Your task to perform on an android device: turn on location history Image 0: 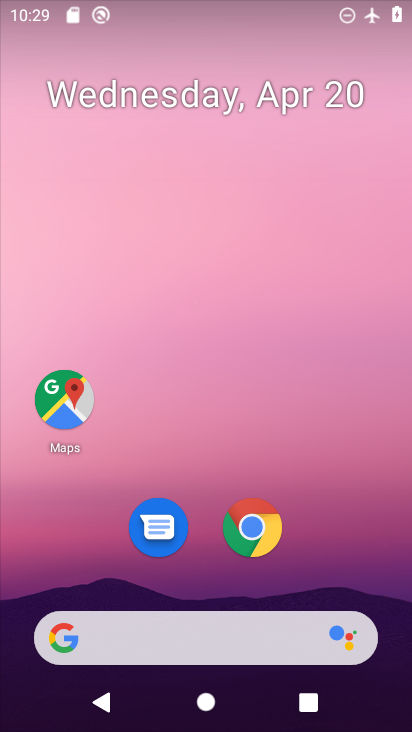
Step 0: drag from (206, 558) to (241, 2)
Your task to perform on an android device: turn on location history Image 1: 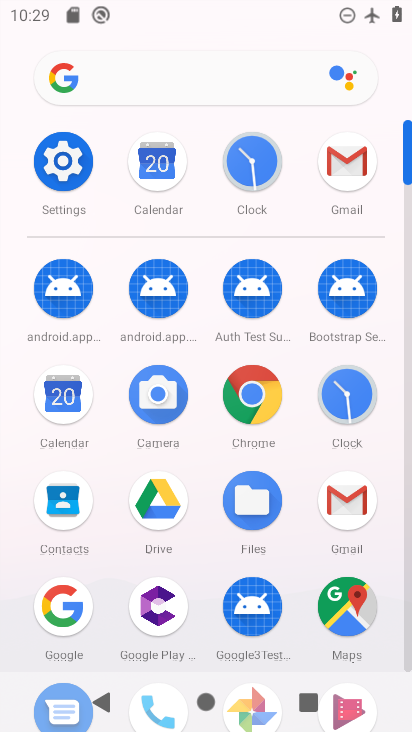
Step 1: click (77, 170)
Your task to perform on an android device: turn on location history Image 2: 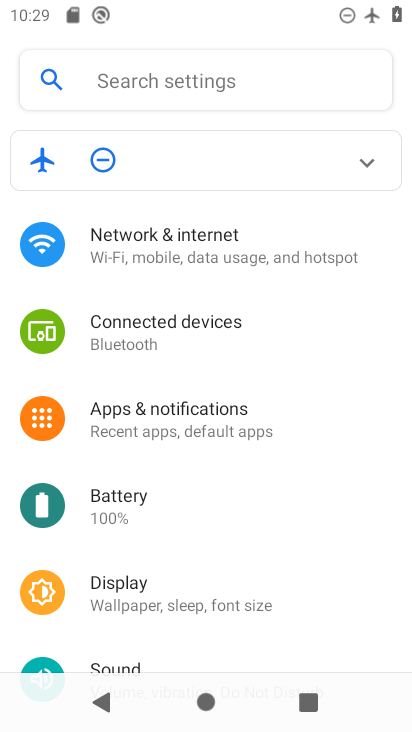
Step 2: drag from (161, 587) to (246, 143)
Your task to perform on an android device: turn on location history Image 3: 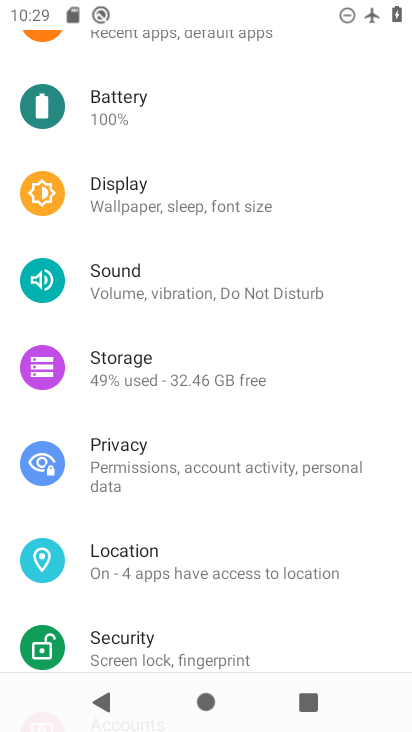
Step 3: click (151, 561)
Your task to perform on an android device: turn on location history Image 4: 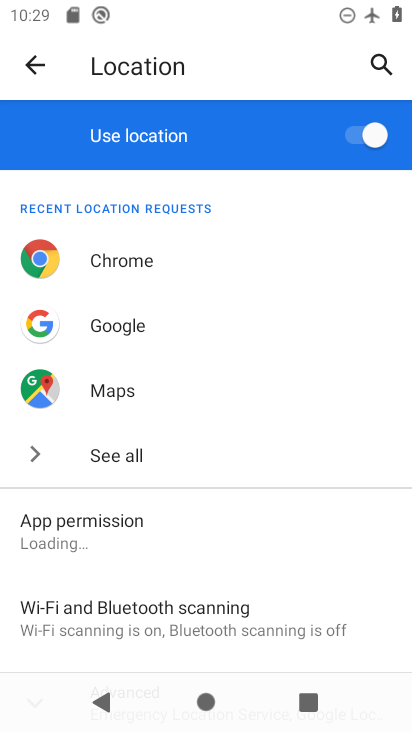
Step 4: drag from (141, 545) to (200, 183)
Your task to perform on an android device: turn on location history Image 5: 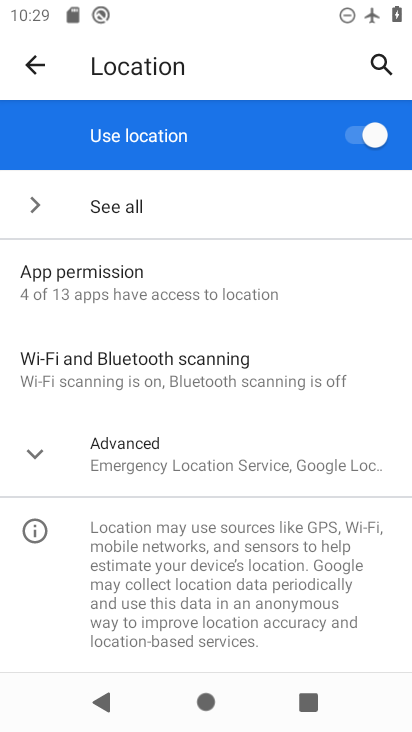
Step 5: click (132, 442)
Your task to perform on an android device: turn on location history Image 6: 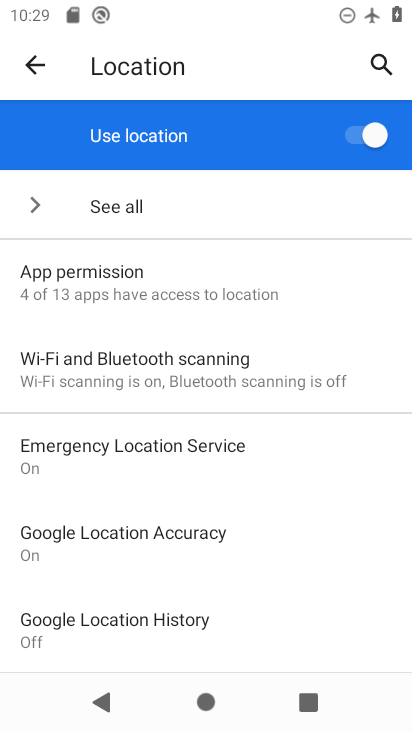
Step 6: click (101, 610)
Your task to perform on an android device: turn on location history Image 7: 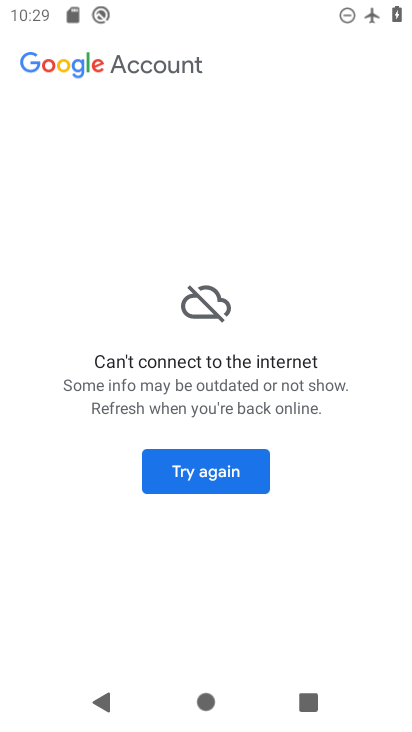
Step 7: click (220, 470)
Your task to perform on an android device: turn on location history Image 8: 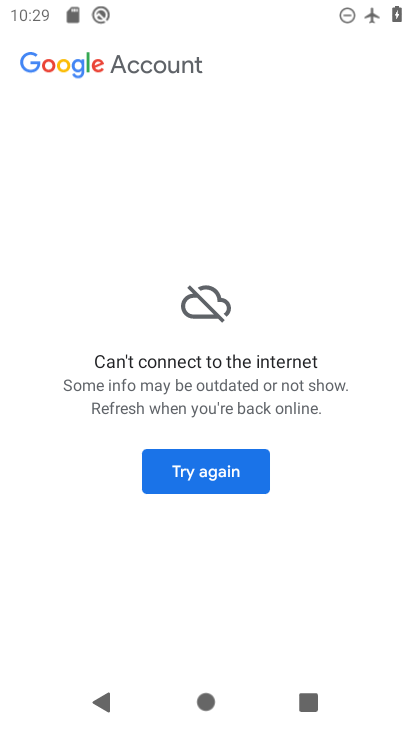
Step 8: task complete